Your task to perform on an android device: uninstall "Adobe Acrobat Reader: Edit PDF" Image 0: 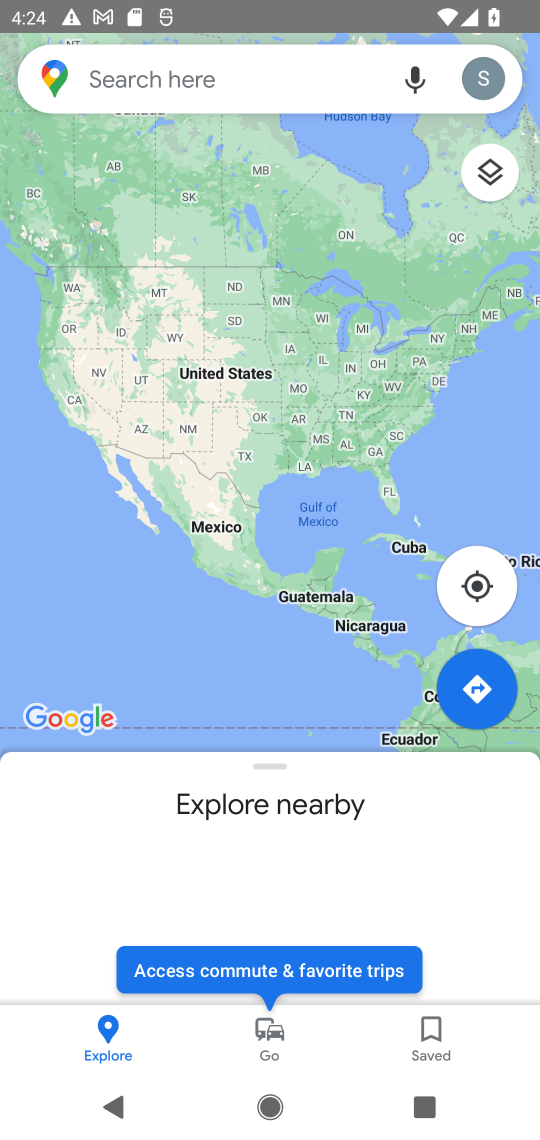
Step 0: press home button
Your task to perform on an android device: uninstall "Adobe Acrobat Reader: Edit PDF" Image 1: 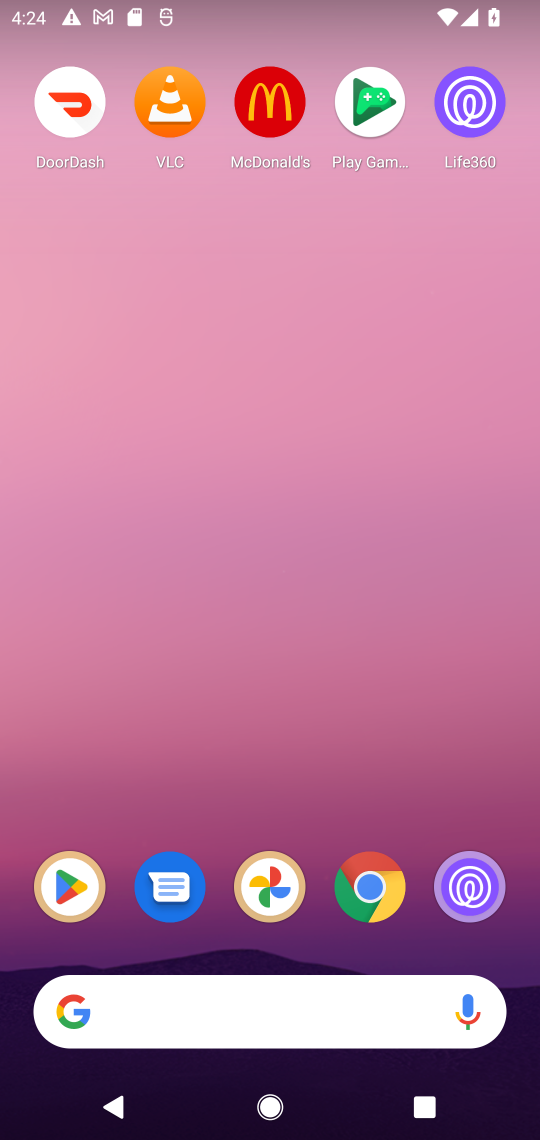
Step 1: click (75, 891)
Your task to perform on an android device: uninstall "Adobe Acrobat Reader: Edit PDF" Image 2: 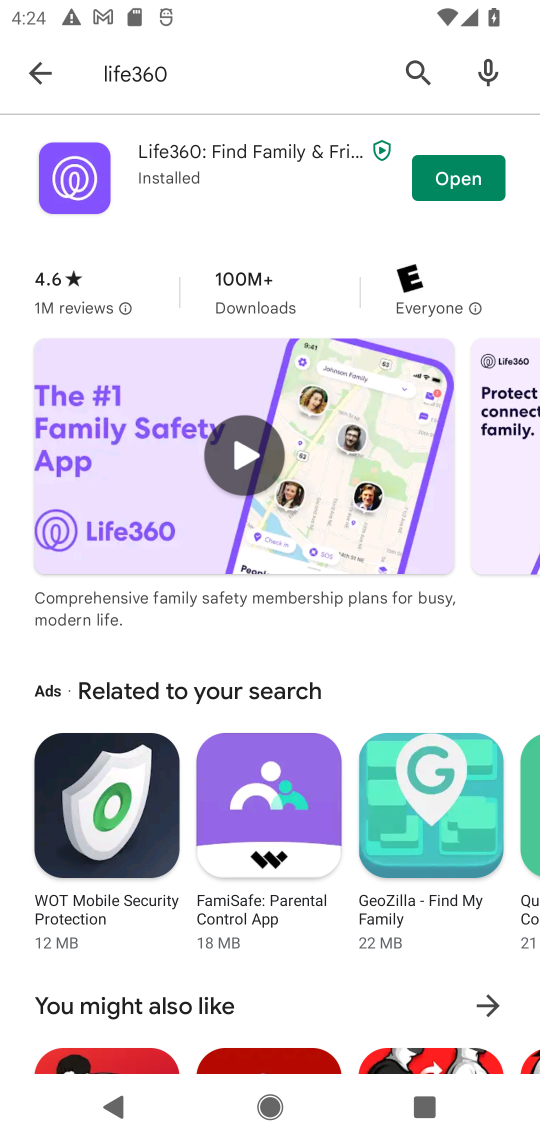
Step 2: click (230, 78)
Your task to perform on an android device: uninstall "Adobe Acrobat Reader: Edit PDF" Image 3: 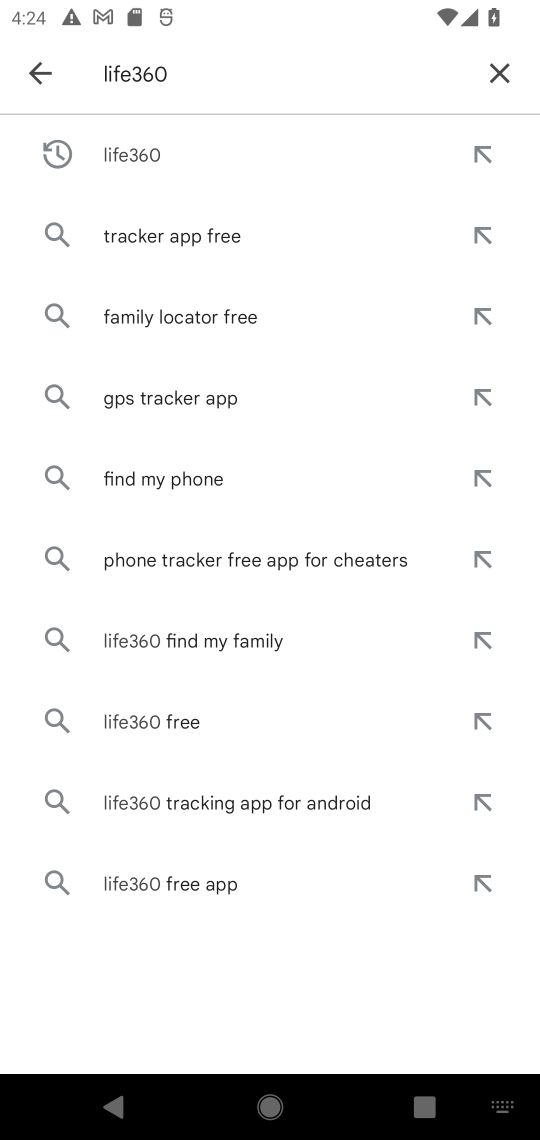
Step 3: click (493, 64)
Your task to perform on an android device: uninstall "Adobe Acrobat Reader: Edit PDF" Image 4: 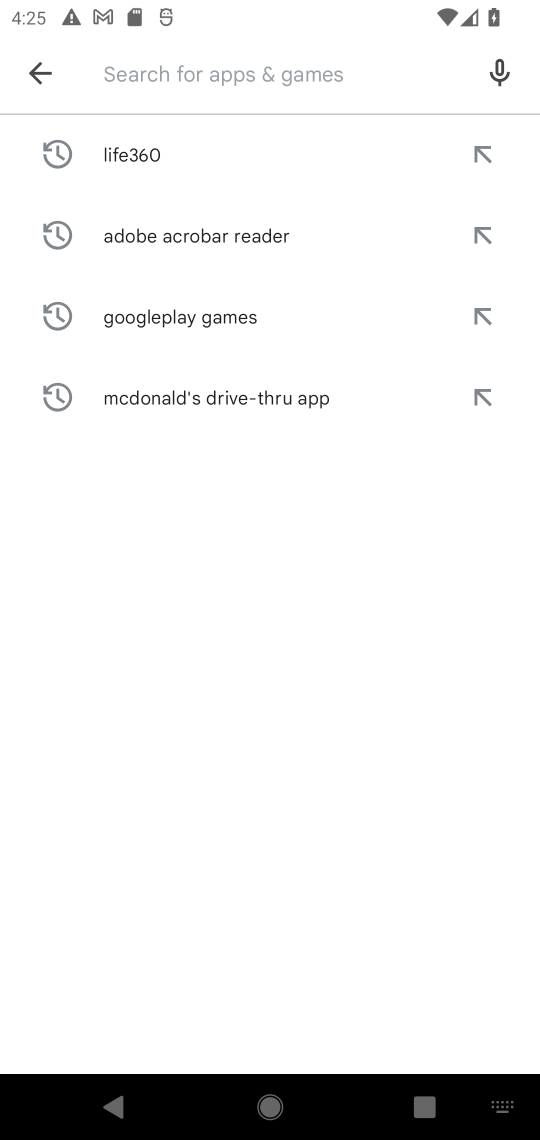
Step 4: type "Adobe Acrobat Reader"
Your task to perform on an android device: uninstall "Adobe Acrobat Reader: Edit PDF" Image 5: 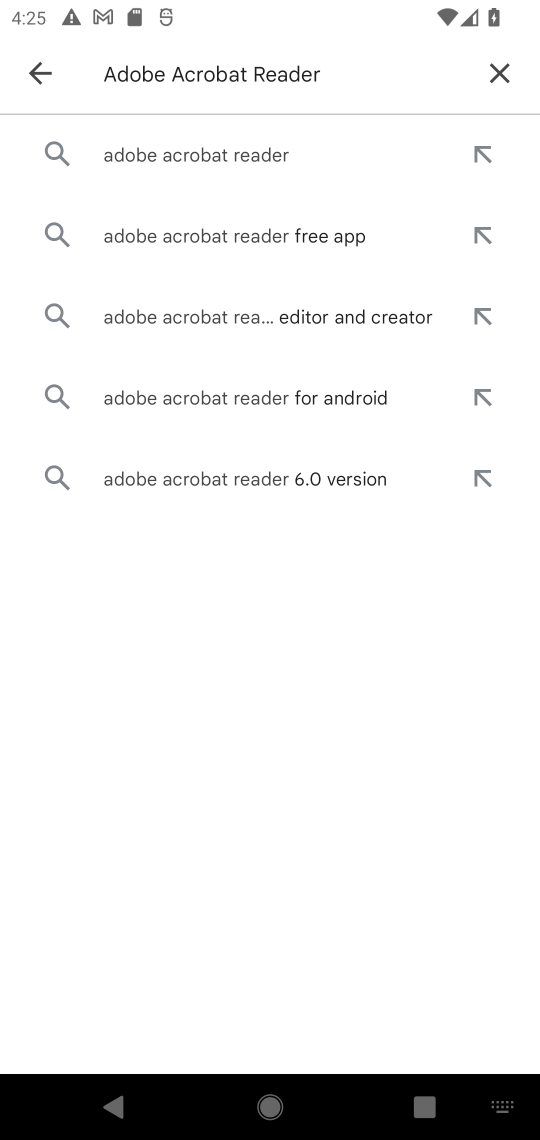
Step 5: click (220, 169)
Your task to perform on an android device: uninstall "Adobe Acrobat Reader: Edit PDF" Image 6: 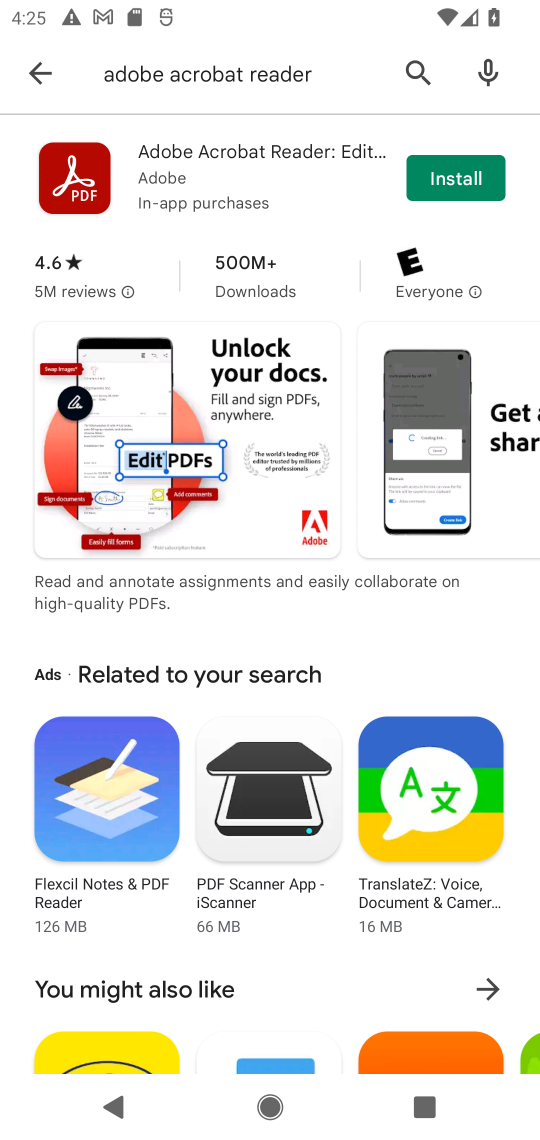
Step 6: task complete